Your task to perform on an android device: change your default location settings in chrome Image 0: 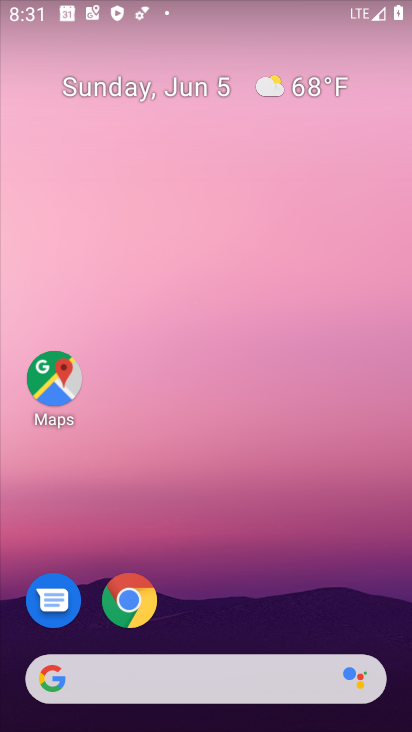
Step 0: click (138, 606)
Your task to perform on an android device: change your default location settings in chrome Image 1: 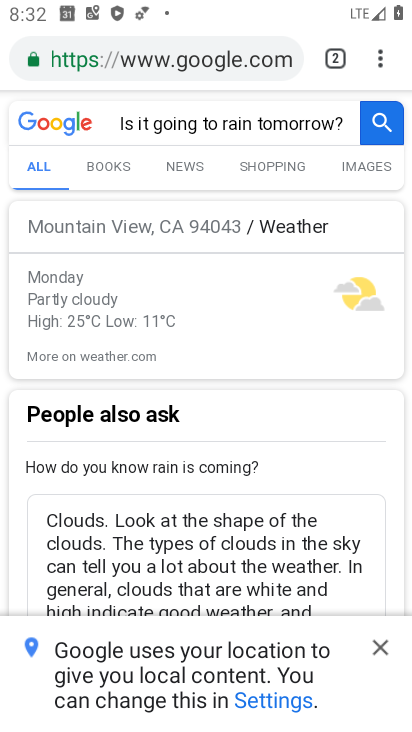
Step 1: click (381, 57)
Your task to perform on an android device: change your default location settings in chrome Image 2: 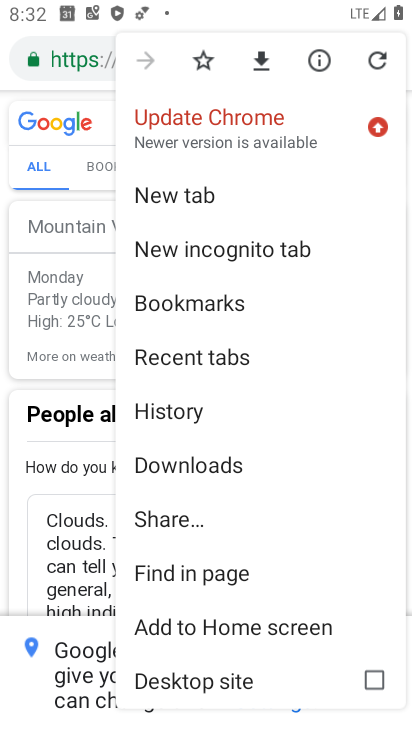
Step 2: drag from (249, 507) to (245, 169)
Your task to perform on an android device: change your default location settings in chrome Image 3: 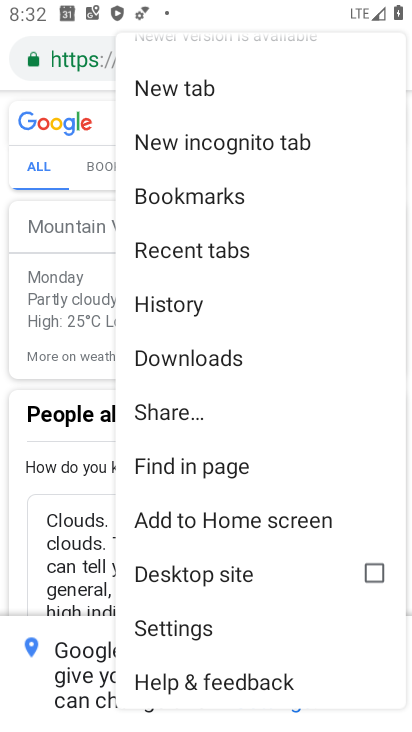
Step 3: click (193, 622)
Your task to perform on an android device: change your default location settings in chrome Image 4: 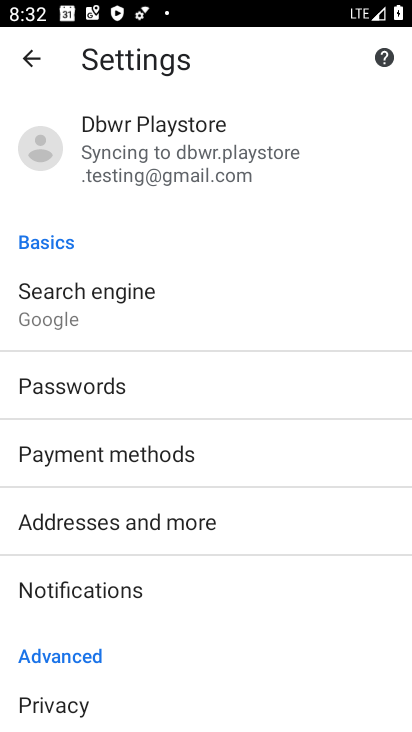
Step 4: drag from (287, 550) to (290, 154)
Your task to perform on an android device: change your default location settings in chrome Image 5: 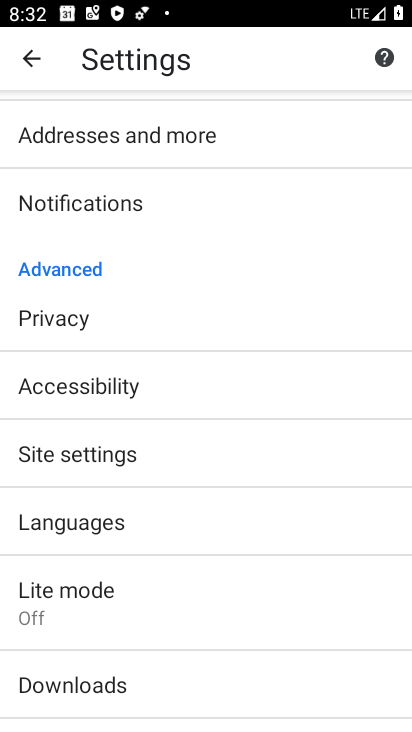
Step 5: click (228, 451)
Your task to perform on an android device: change your default location settings in chrome Image 6: 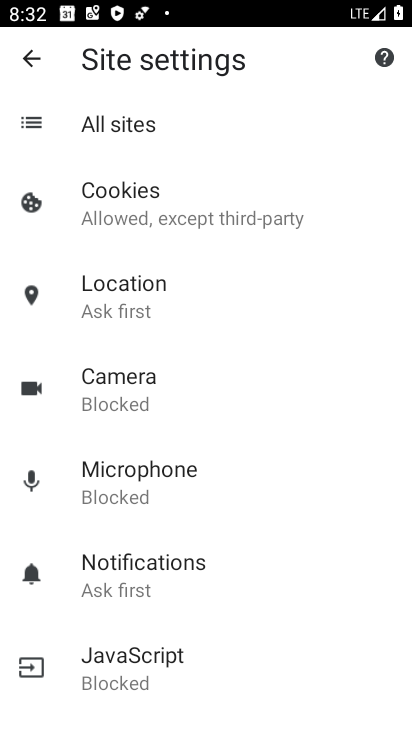
Step 6: click (170, 297)
Your task to perform on an android device: change your default location settings in chrome Image 7: 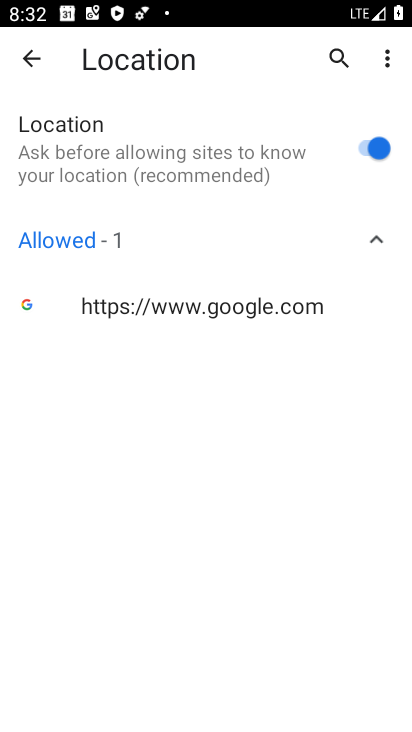
Step 7: click (368, 145)
Your task to perform on an android device: change your default location settings in chrome Image 8: 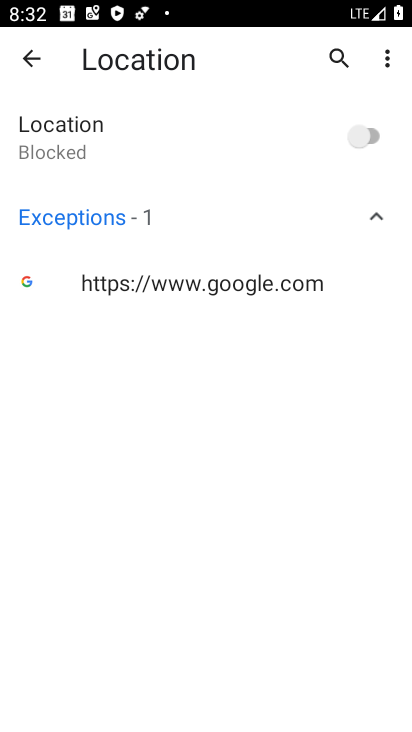
Step 8: task complete